Your task to perform on an android device: check android version Image 0: 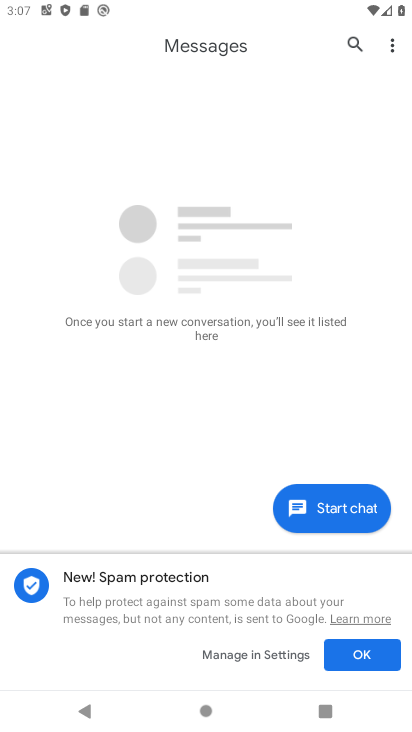
Step 0: press home button
Your task to perform on an android device: check android version Image 1: 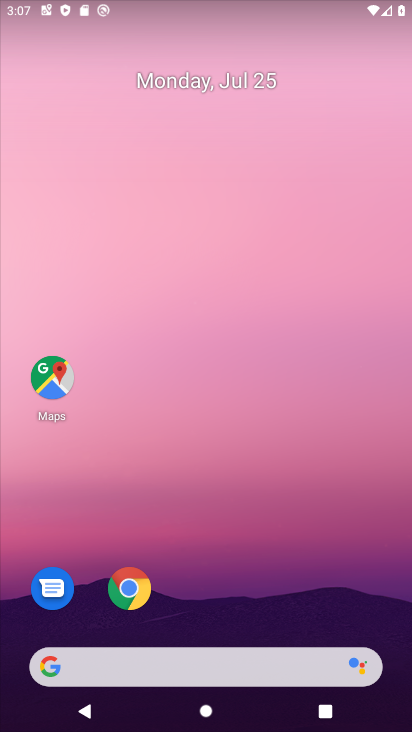
Step 1: drag from (222, 612) to (190, 138)
Your task to perform on an android device: check android version Image 2: 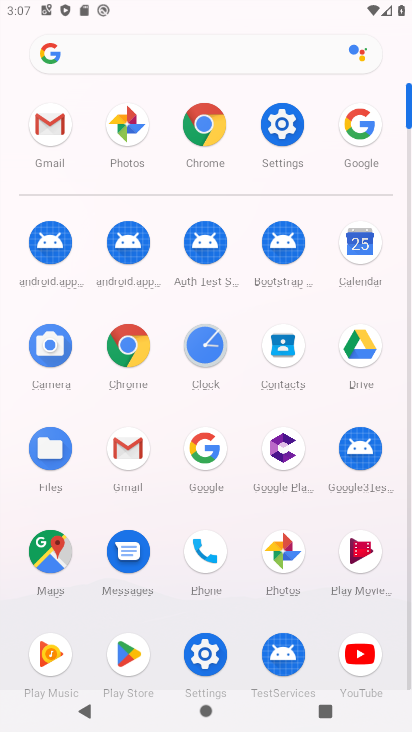
Step 2: click (267, 131)
Your task to perform on an android device: check android version Image 3: 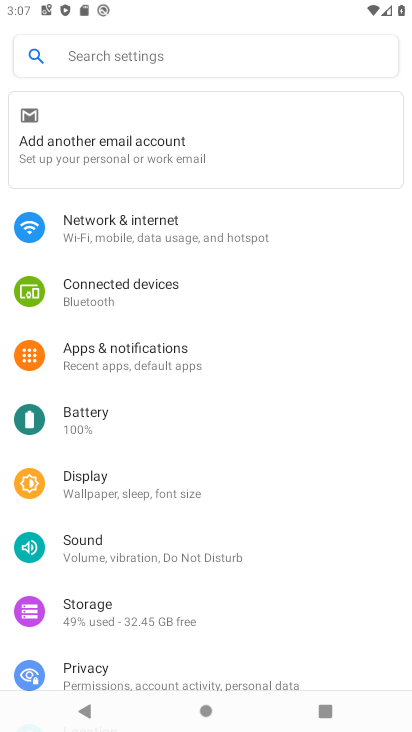
Step 3: drag from (188, 633) to (171, 5)
Your task to perform on an android device: check android version Image 4: 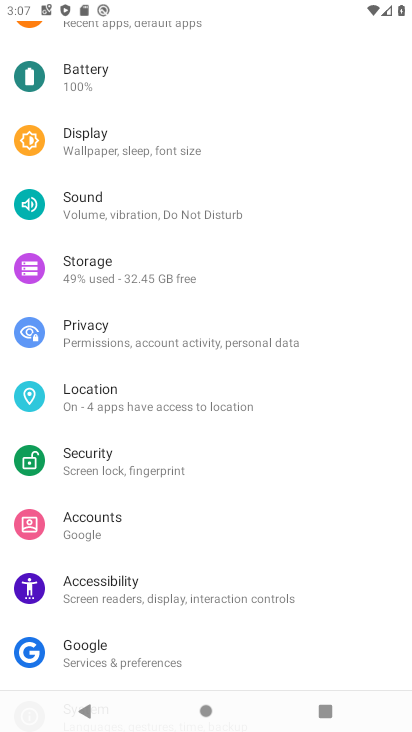
Step 4: drag from (85, 652) to (124, 88)
Your task to perform on an android device: check android version Image 5: 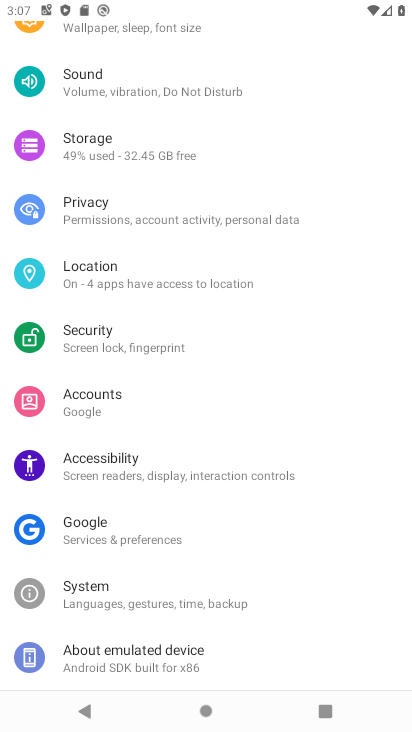
Step 5: click (104, 648)
Your task to perform on an android device: check android version Image 6: 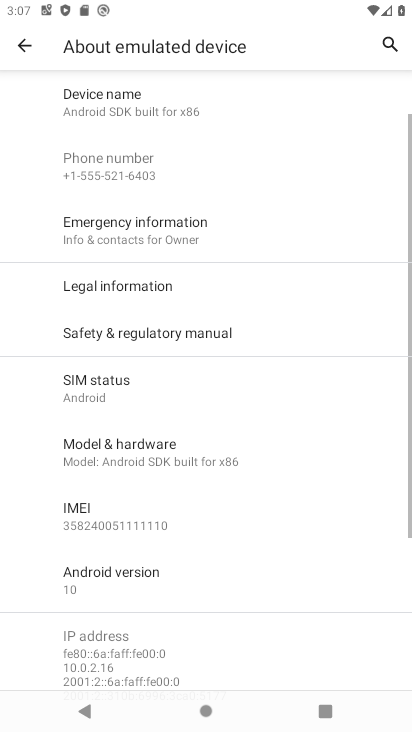
Step 6: click (113, 604)
Your task to perform on an android device: check android version Image 7: 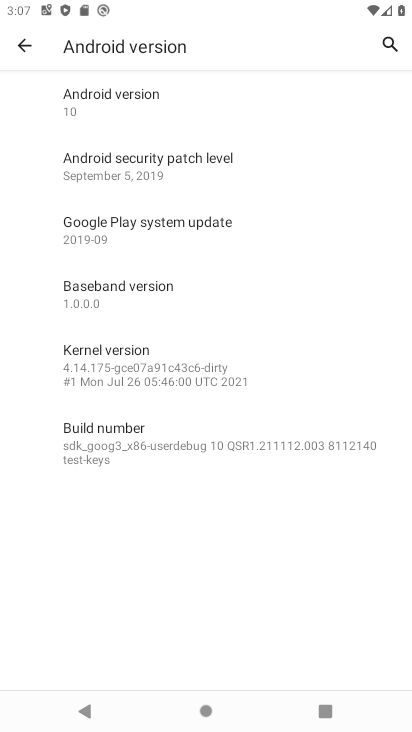
Step 7: click (176, 90)
Your task to perform on an android device: check android version Image 8: 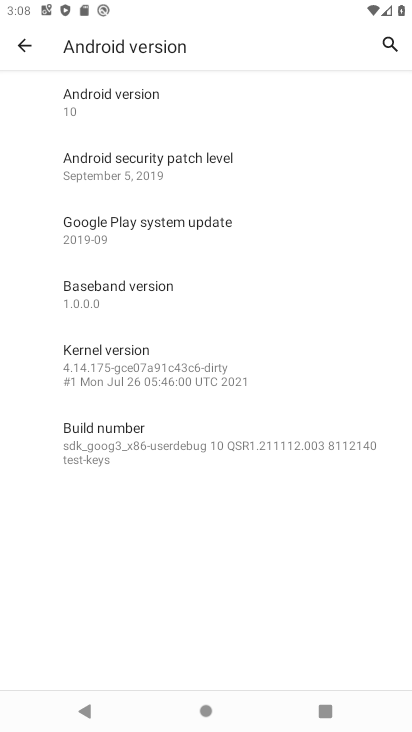
Step 8: task complete